Your task to perform on an android device: toggle priority inbox in the gmail app Image 0: 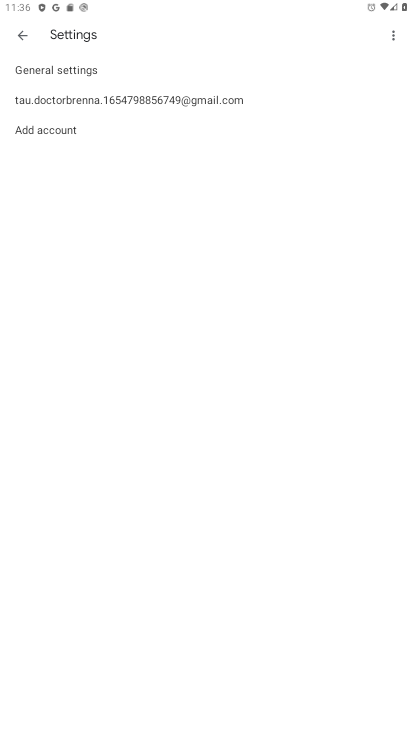
Step 0: press home button
Your task to perform on an android device: toggle priority inbox in the gmail app Image 1: 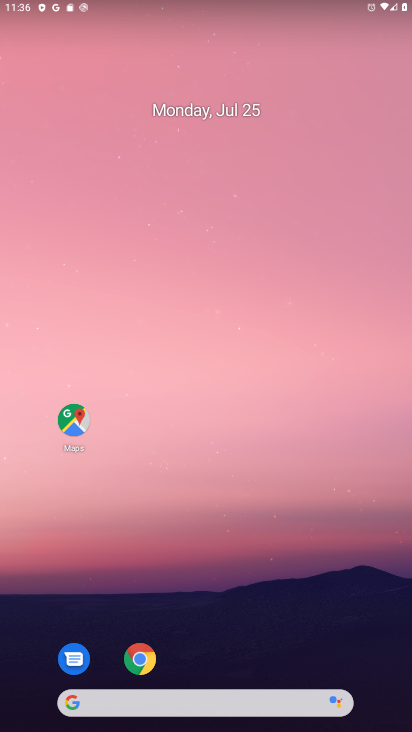
Step 1: drag from (222, 586) to (150, 26)
Your task to perform on an android device: toggle priority inbox in the gmail app Image 2: 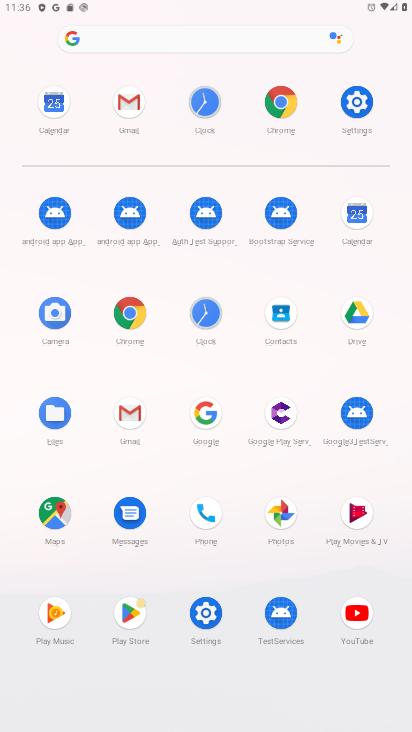
Step 2: click (127, 417)
Your task to perform on an android device: toggle priority inbox in the gmail app Image 3: 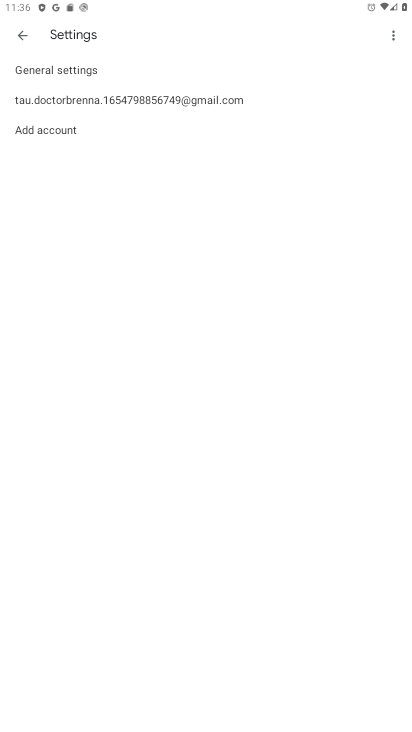
Step 3: click (83, 89)
Your task to perform on an android device: toggle priority inbox in the gmail app Image 4: 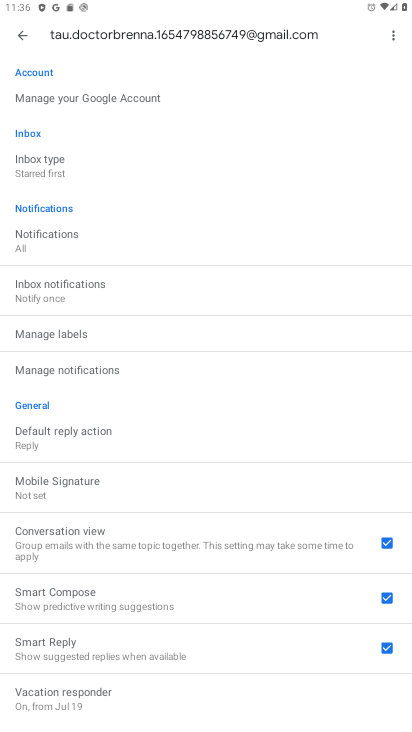
Step 4: click (40, 170)
Your task to perform on an android device: toggle priority inbox in the gmail app Image 5: 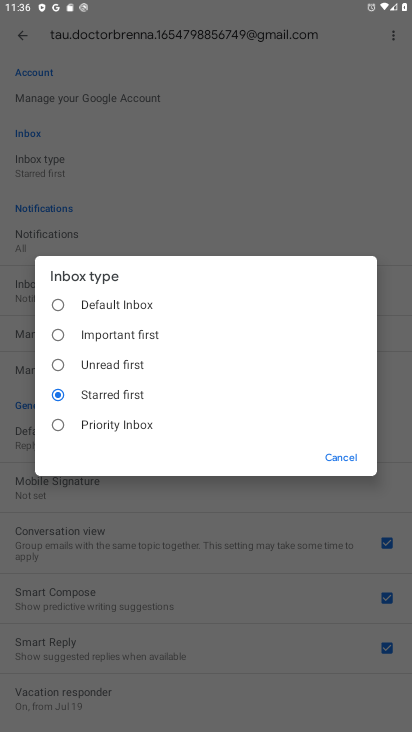
Step 5: click (58, 418)
Your task to perform on an android device: toggle priority inbox in the gmail app Image 6: 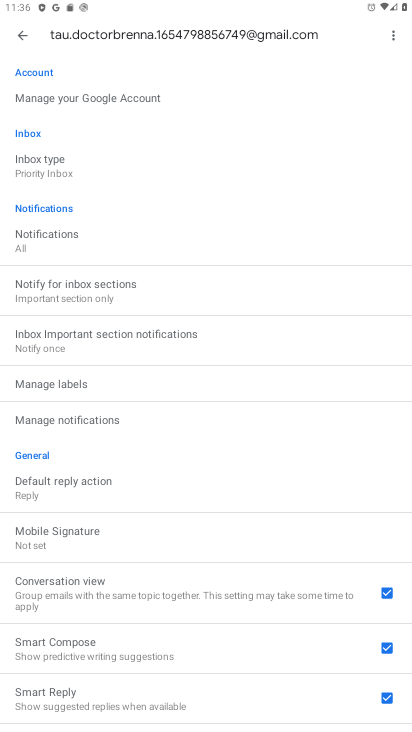
Step 6: task complete